Your task to perform on an android device: Open Google Chrome Image 0: 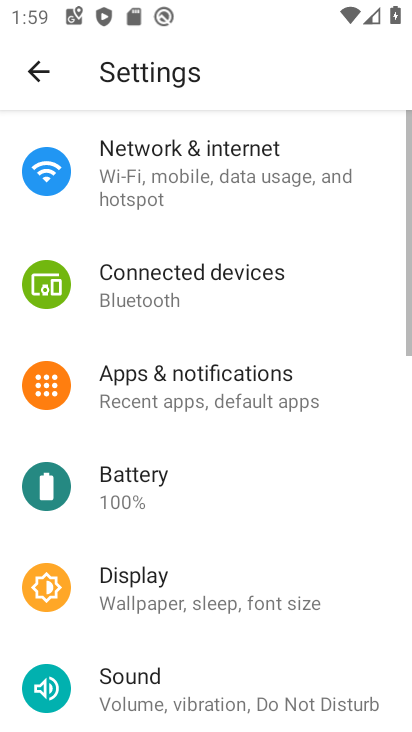
Step 0: press home button
Your task to perform on an android device: Open Google Chrome Image 1: 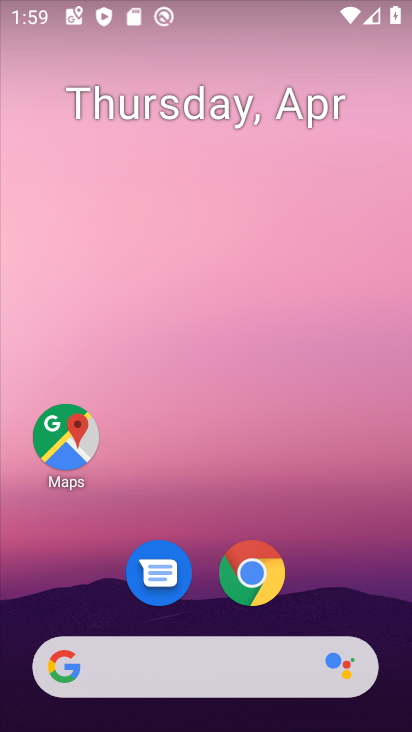
Step 1: drag from (336, 604) to (266, 38)
Your task to perform on an android device: Open Google Chrome Image 2: 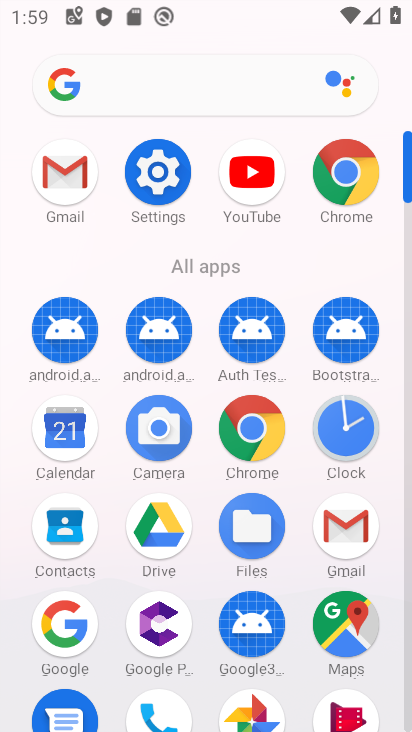
Step 2: click (45, 631)
Your task to perform on an android device: Open Google Chrome Image 3: 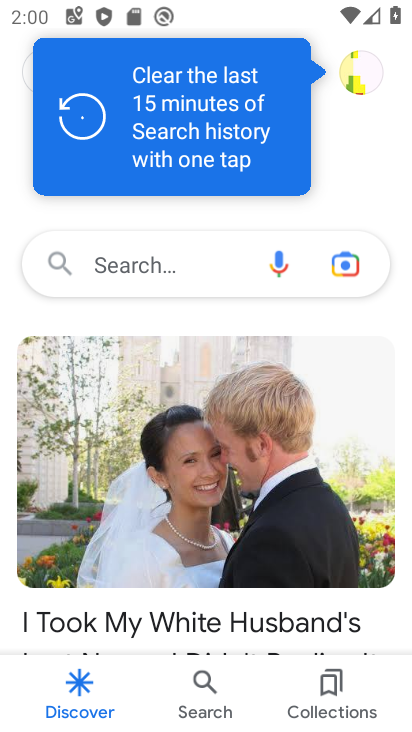
Step 3: task complete